Your task to perform on an android device: turn off translation in the chrome app Image 0: 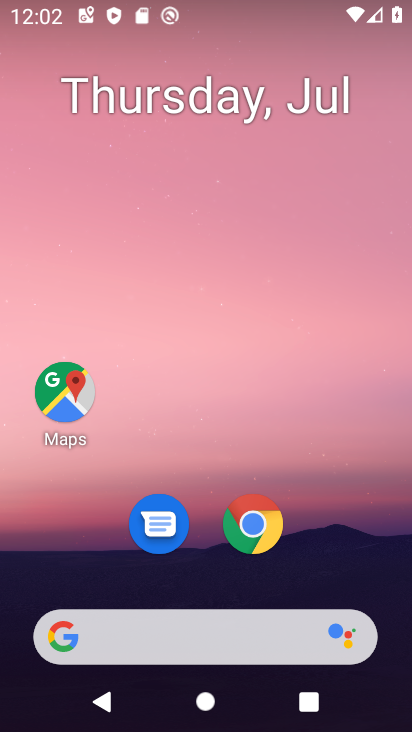
Step 0: click (261, 541)
Your task to perform on an android device: turn off translation in the chrome app Image 1: 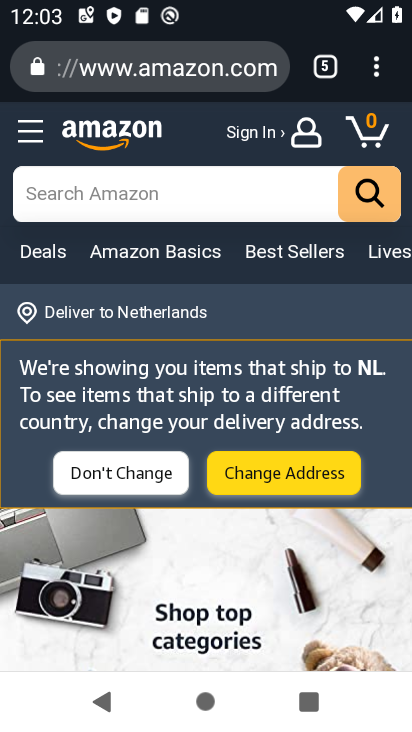
Step 1: drag from (374, 79) to (209, 528)
Your task to perform on an android device: turn off translation in the chrome app Image 2: 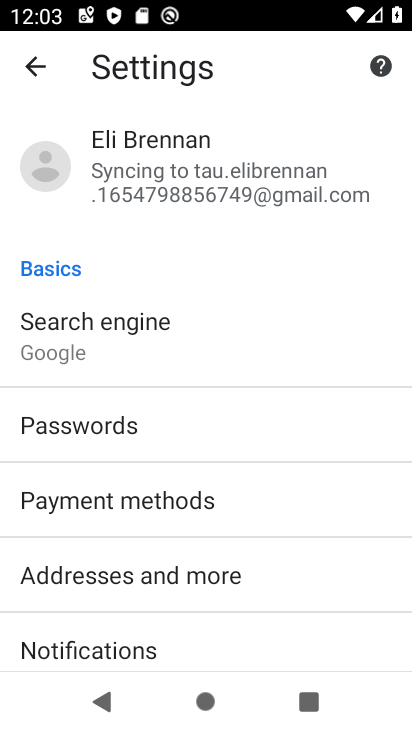
Step 2: drag from (182, 594) to (285, 78)
Your task to perform on an android device: turn off translation in the chrome app Image 3: 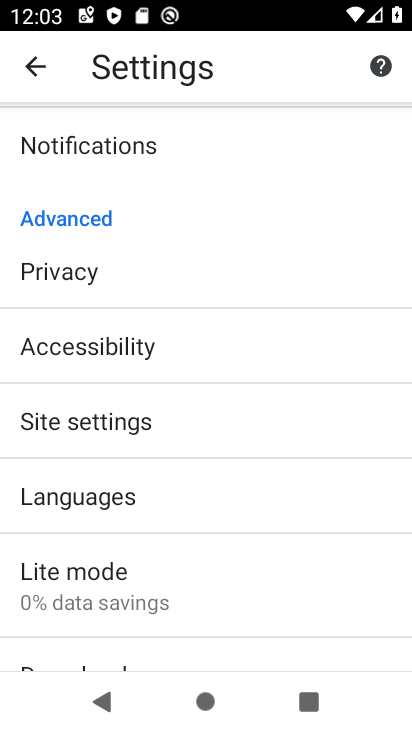
Step 3: click (139, 506)
Your task to perform on an android device: turn off translation in the chrome app Image 4: 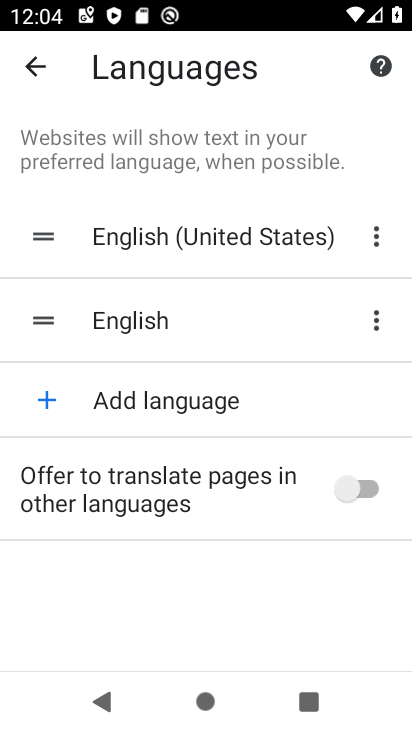
Step 4: task complete